Your task to perform on an android device: read, delete, or share a saved page in the chrome app Image 0: 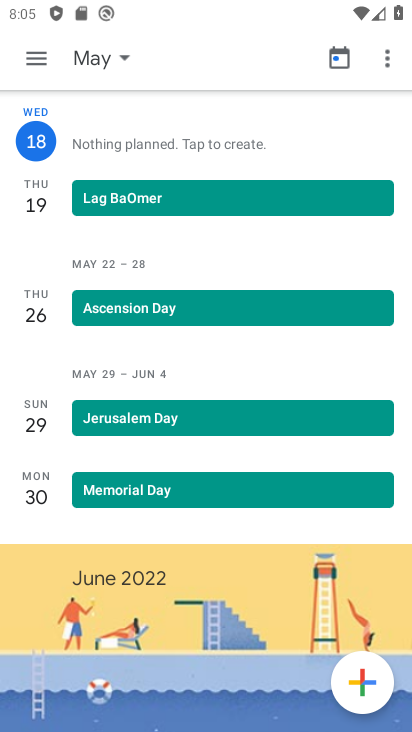
Step 0: press back button
Your task to perform on an android device: read, delete, or share a saved page in the chrome app Image 1: 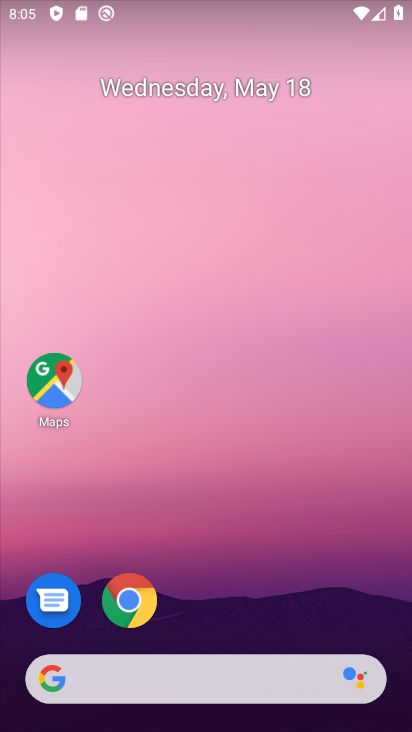
Step 1: click (115, 605)
Your task to perform on an android device: read, delete, or share a saved page in the chrome app Image 2: 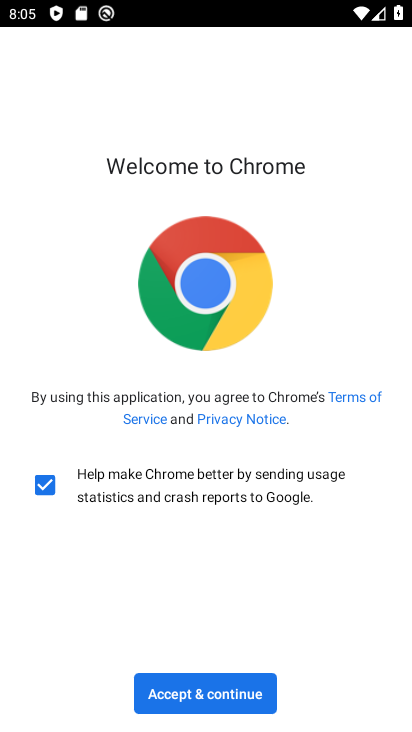
Step 2: click (176, 671)
Your task to perform on an android device: read, delete, or share a saved page in the chrome app Image 3: 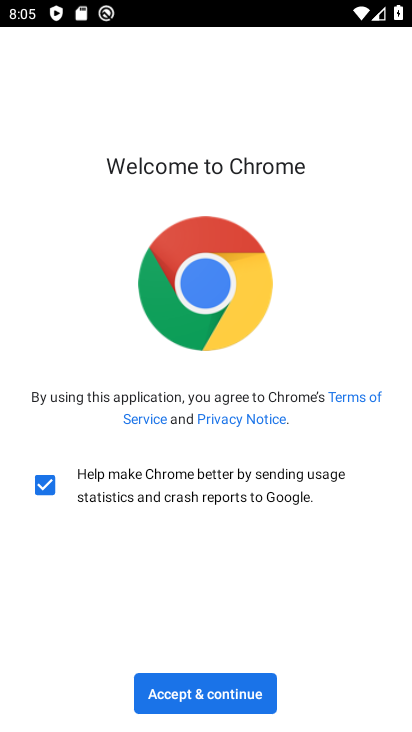
Step 3: click (224, 691)
Your task to perform on an android device: read, delete, or share a saved page in the chrome app Image 4: 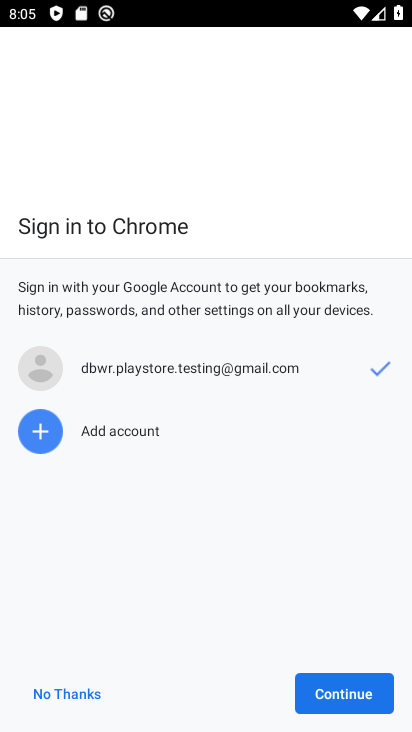
Step 4: click (352, 696)
Your task to perform on an android device: read, delete, or share a saved page in the chrome app Image 5: 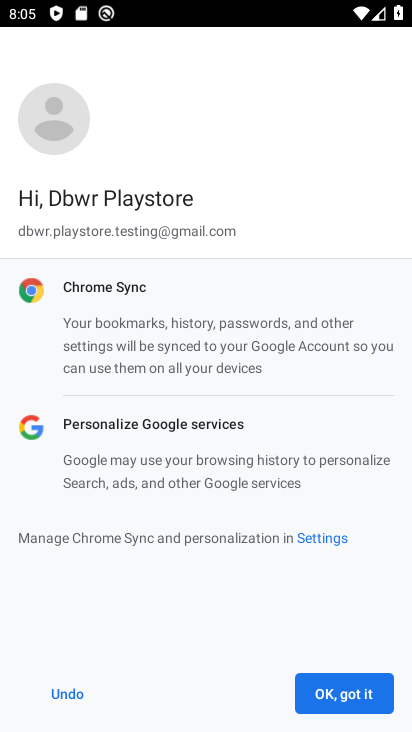
Step 5: click (355, 696)
Your task to perform on an android device: read, delete, or share a saved page in the chrome app Image 6: 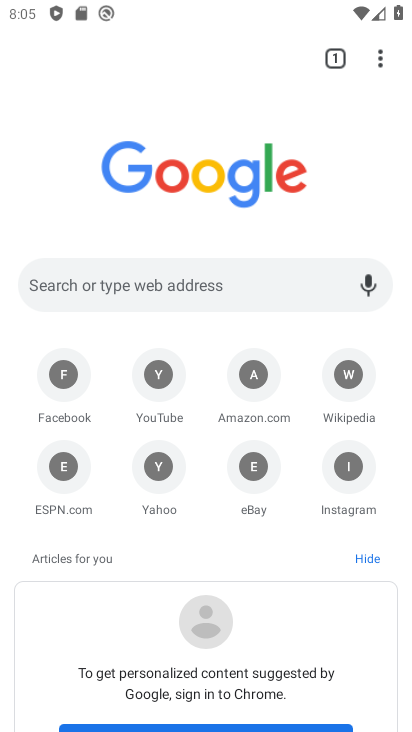
Step 6: drag from (379, 59) to (200, 383)
Your task to perform on an android device: read, delete, or share a saved page in the chrome app Image 7: 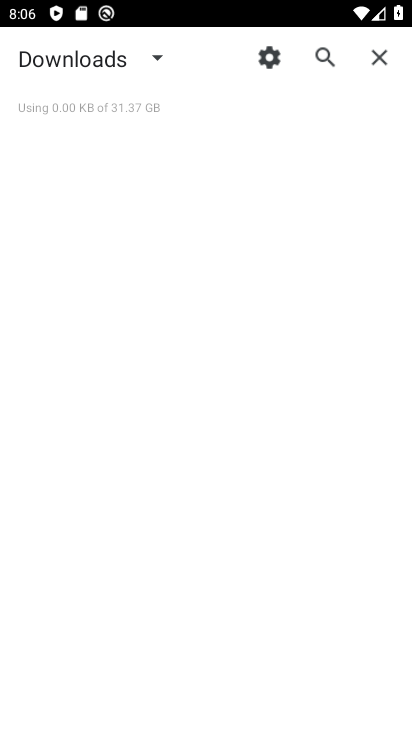
Step 7: click (154, 65)
Your task to perform on an android device: read, delete, or share a saved page in the chrome app Image 8: 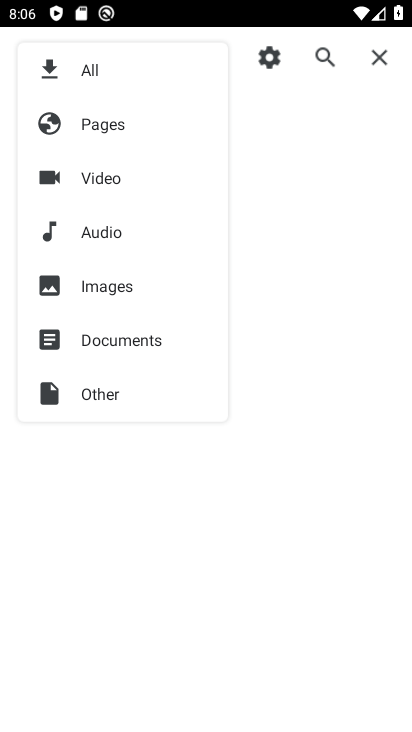
Step 8: click (98, 143)
Your task to perform on an android device: read, delete, or share a saved page in the chrome app Image 9: 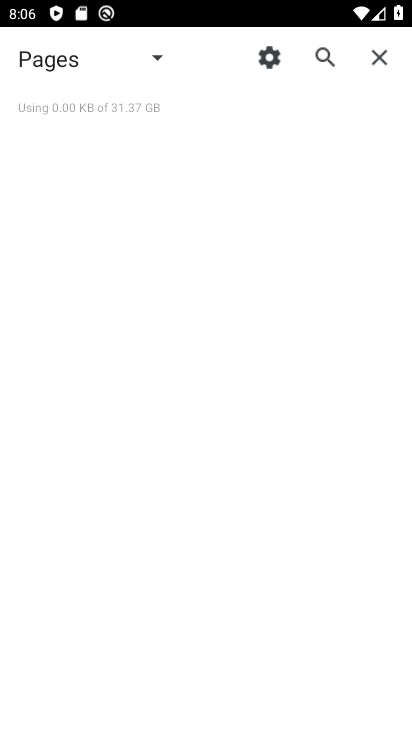
Step 9: task complete